Your task to perform on an android device: allow notifications from all sites in the chrome app Image 0: 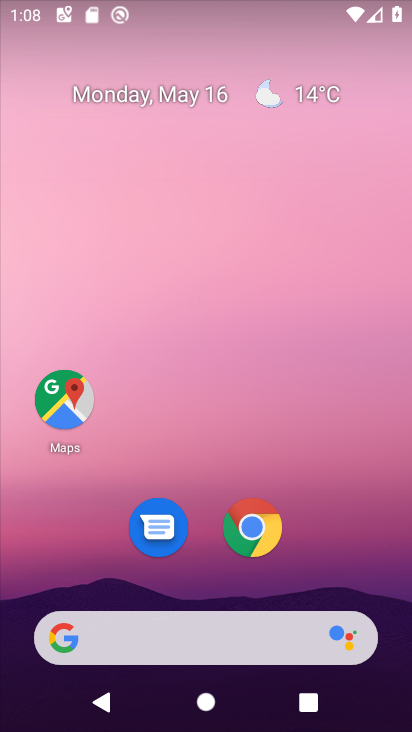
Step 0: drag from (200, 597) to (264, 5)
Your task to perform on an android device: allow notifications from all sites in the chrome app Image 1: 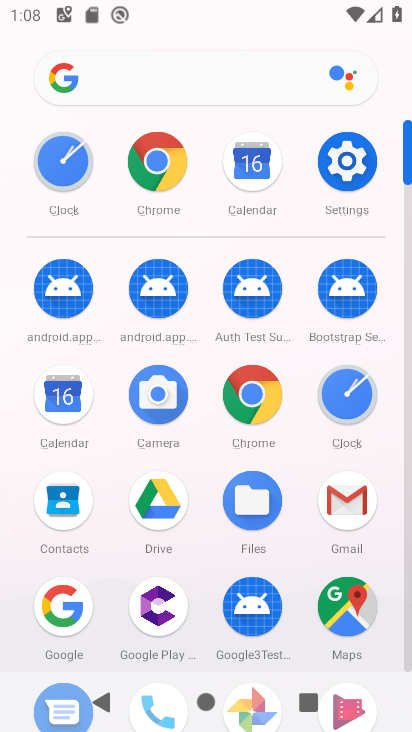
Step 1: click (165, 189)
Your task to perform on an android device: allow notifications from all sites in the chrome app Image 2: 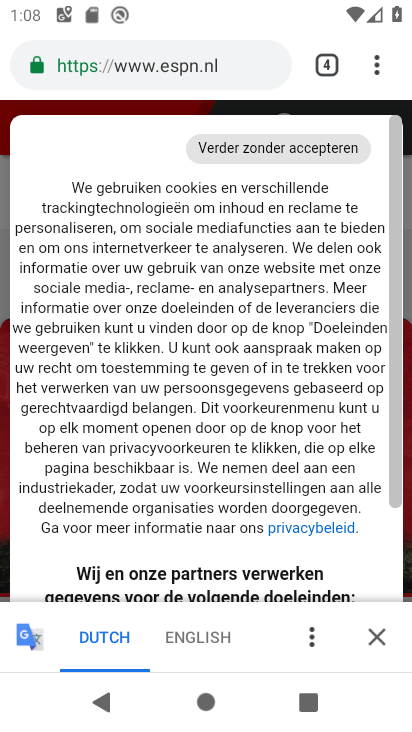
Step 2: click (377, 71)
Your task to perform on an android device: allow notifications from all sites in the chrome app Image 3: 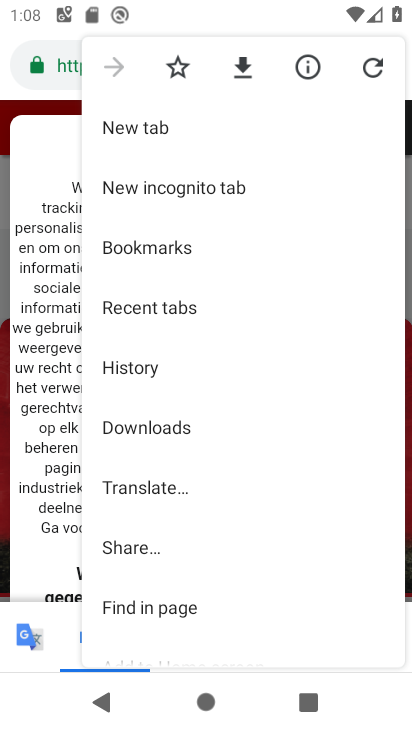
Step 3: drag from (146, 584) to (172, 244)
Your task to perform on an android device: allow notifications from all sites in the chrome app Image 4: 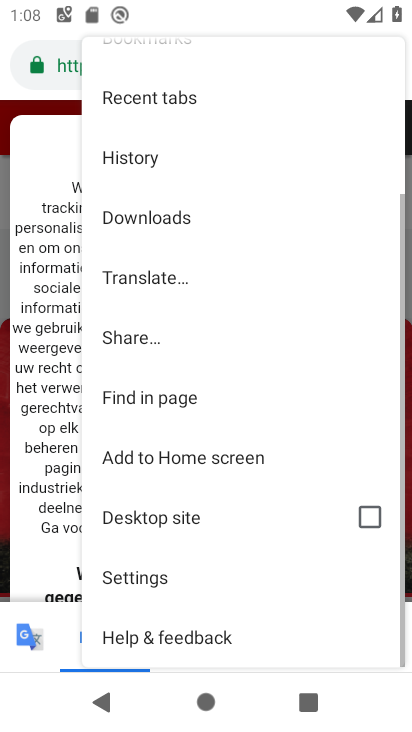
Step 4: click (133, 586)
Your task to perform on an android device: allow notifications from all sites in the chrome app Image 5: 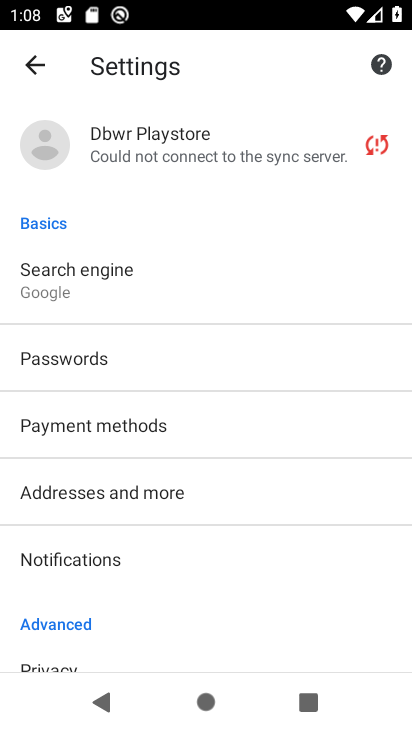
Step 5: click (90, 566)
Your task to perform on an android device: allow notifications from all sites in the chrome app Image 6: 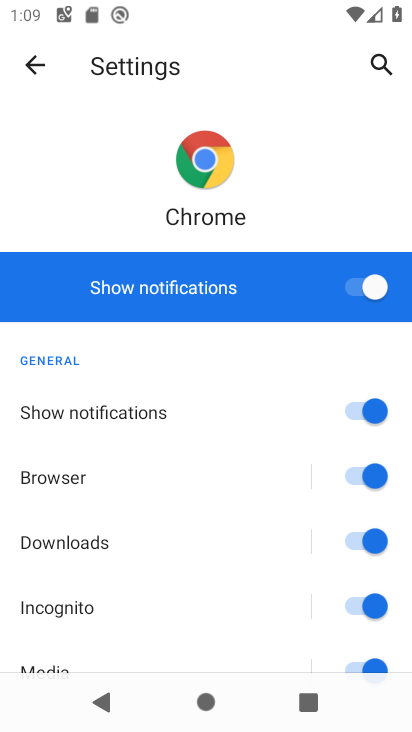
Step 6: task complete